Your task to perform on an android device: turn on the 24-hour format for clock Image 0: 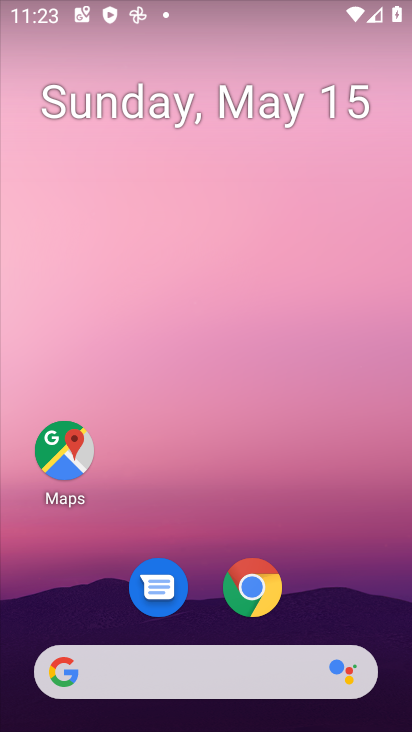
Step 0: drag from (399, 613) to (318, 50)
Your task to perform on an android device: turn on the 24-hour format for clock Image 1: 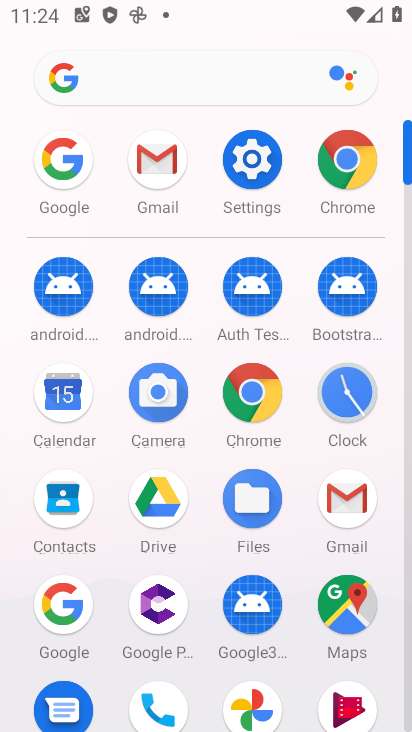
Step 1: click (363, 376)
Your task to perform on an android device: turn on the 24-hour format for clock Image 2: 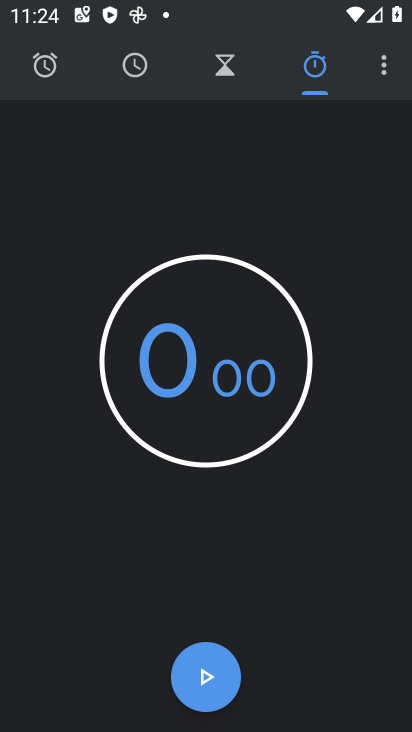
Step 2: click (388, 56)
Your task to perform on an android device: turn on the 24-hour format for clock Image 3: 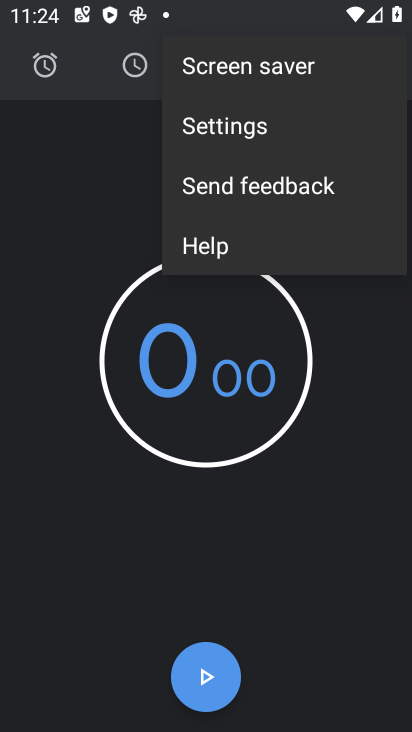
Step 3: click (287, 132)
Your task to perform on an android device: turn on the 24-hour format for clock Image 4: 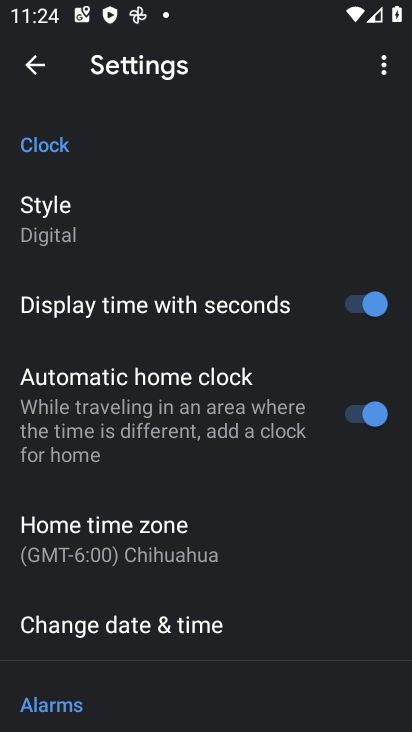
Step 4: click (161, 626)
Your task to perform on an android device: turn on the 24-hour format for clock Image 5: 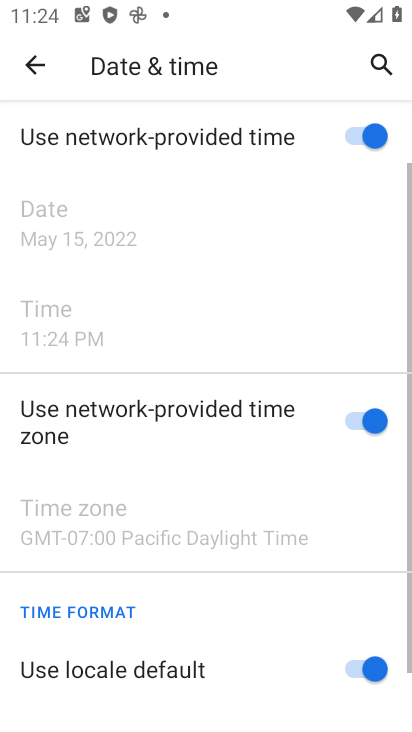
Step 5: task complete